Your task to perform on an android device: Clear the shopping cart on amazon. Search for "bose soundlink" on amazon, select the first entry, add it to the cart, then select checkout. Image 0: 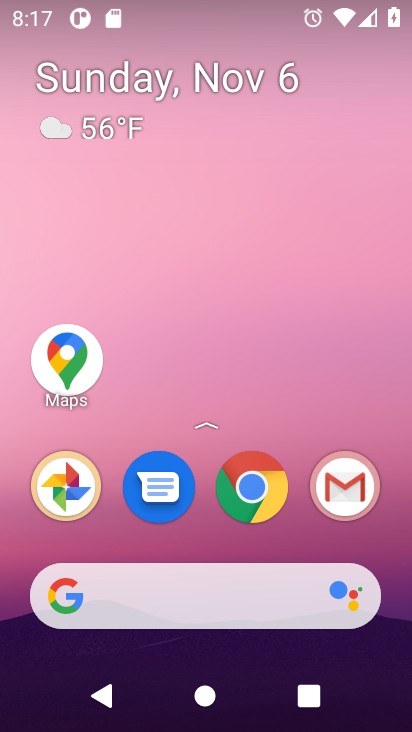
Step 0: click (247, 508)
Your task to perform on an android device: Clear the shopping cart on amazon. Search for "bose soundlink" on amazon, select the first entry, add it to the cart, then select checkout. Image 1: 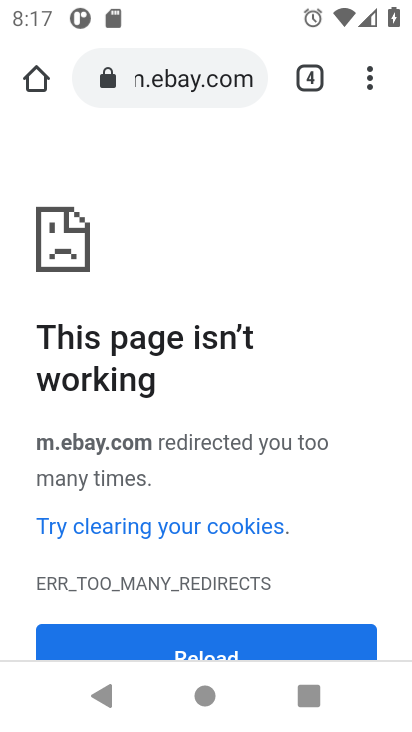
Step 1: click (204, 60)
Your task to perform on an android device: Clear the shopping cart on amazon. Search for "bose soundlink" on amazon, select the first entry, add it to the cart, then select checkout. Image 2: 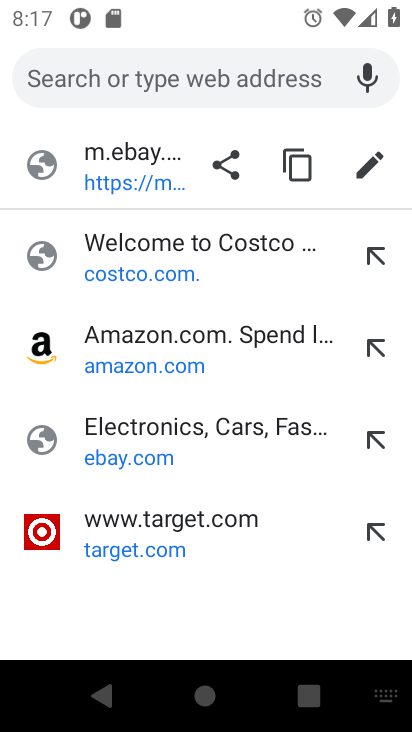
Step 2: click (245, 345)
Your task to perform on an android device: Clear the shopping cart on amazon. Search for "bose soundlink" on amazon, select the first entry, add it to the cart, then select checkout. Image 3: 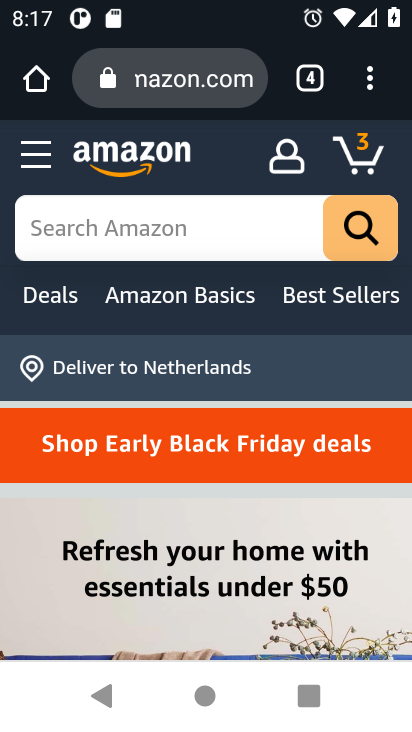
Step 3: click (353, 151)
Your task to perform on an android device: Clear the shopping cart on amazon. Search for "bose soundlink" on amazon, select the first entry, add it to the cart, then select checkout. Image 4: 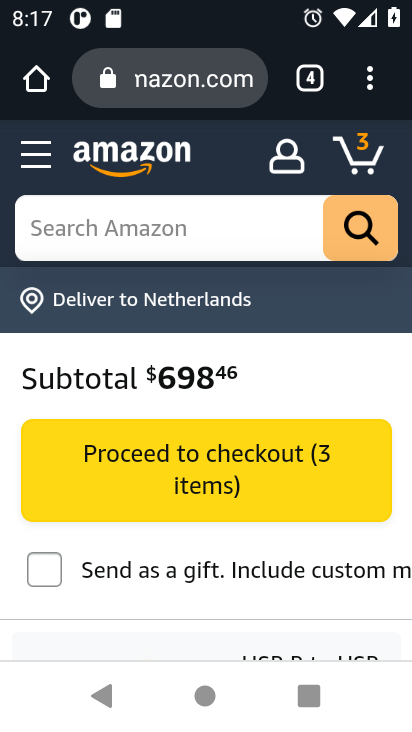
Step 4: drag from (144, 546) to (102, 135)
Your task to perform on an android device: Clear the shopping cart on amazon. Search for "bose soundlink" on amazon, select the first entry, add it to the cart, then select checkout. Image 5: 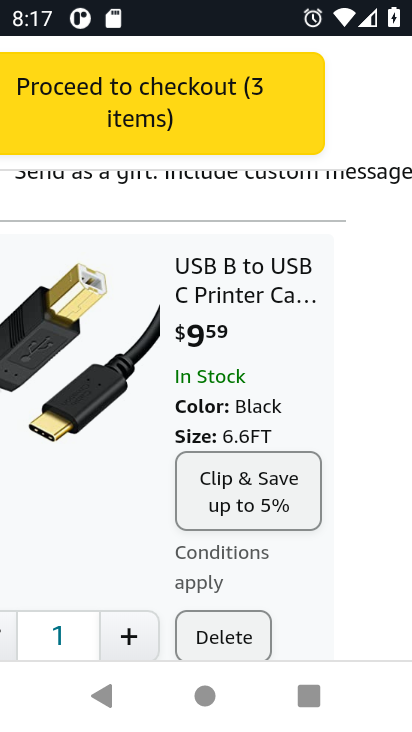
Step 5: click (241, 630)
Your task to perform on an android device: Clear the shopping cart on amazon. Search for "bose soundlink" on amazon, select the first entry, add it to the cart, then select checkout. Image 6: 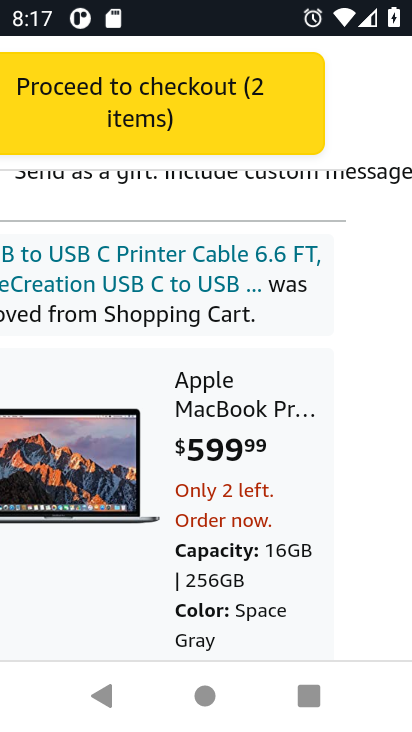
Step 6: drag from (180, 397) to (216, 264)
Your task to perform on an android device: Clear the shopping cart on amazon. Search for "bose soundlink" on amazon, select the first entry, add it to the cart, then select checkout. Image 7: 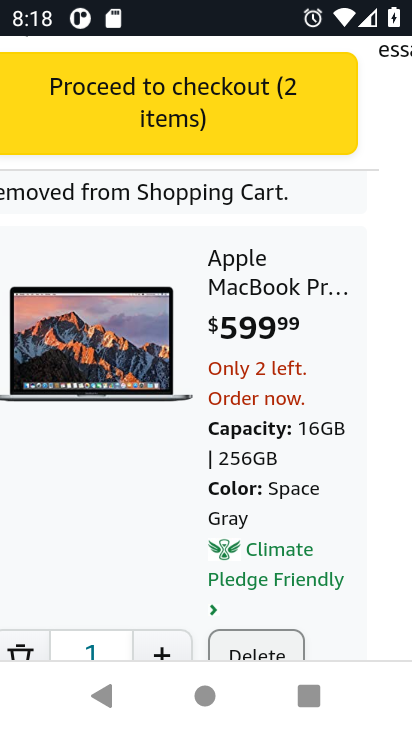
Step 7: click (277, 642)
Your task to perform on an android device: Clear the shopping cart on amazon. Search for "bose soundlink" on amazon, select the first entry, add it to the cart, then select checkout. Image 8: 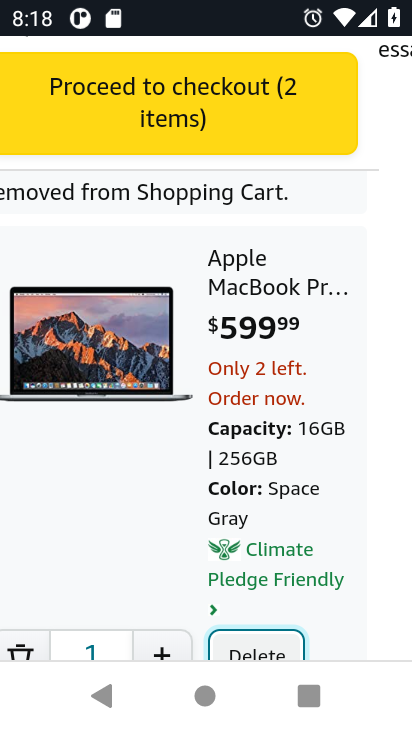
Step 8: click (277, 642)
Your task to perform on an android device: Clear the shopping cart on amazon. Search for "bose soundlink" on amazon, select the first entry, add it to the cart, then select checkout. Image 9: 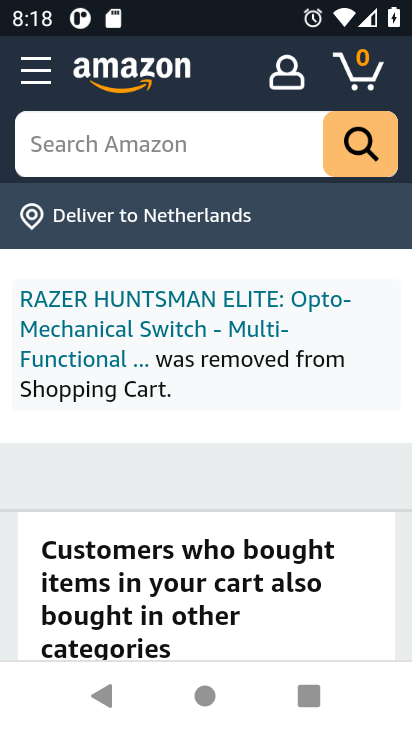
Step 9: click (174, 138)
Your task to perform on an android device: Clear the shopping cart on amazon. Search for "bose soundlink" on amazon, select the first entry, add it to the cart, then select checkout. Image 10: 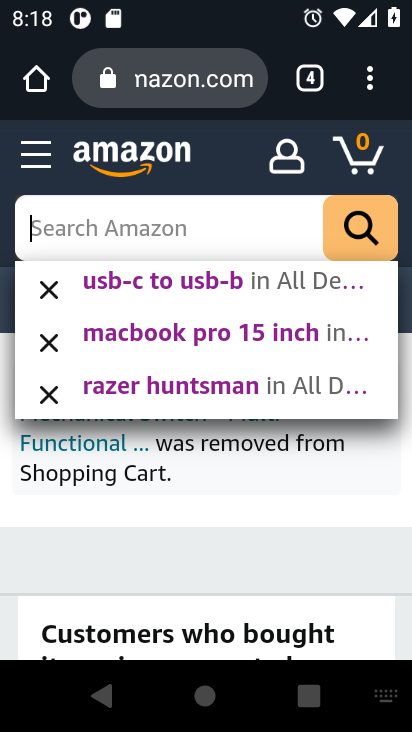
Step 10: drag from (230, 722) to (397, 686)
Your task to perform on an android device: Clear the shopping cart on amazon. Search for "bose soundlink" on amazon, select the first entry, add it to the cart, then select checkout. Image 11: 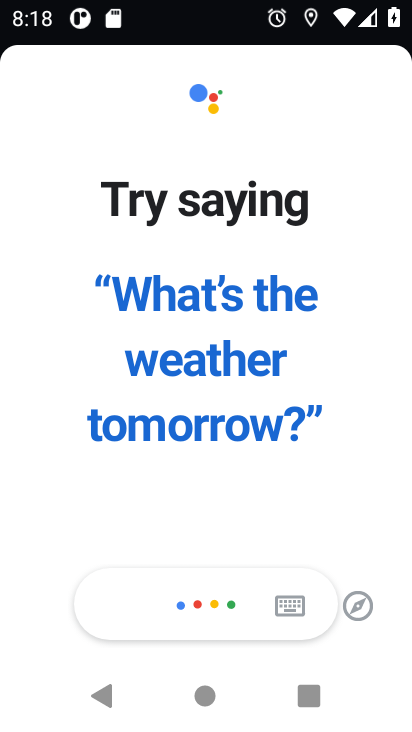
Step 11: press back button
Your task to perform on an android device: Clear the shopping cart on amazon. Search for "bose soundlink" on amazon, select the first entry, add it to the cart, then select checkout. Image 12: 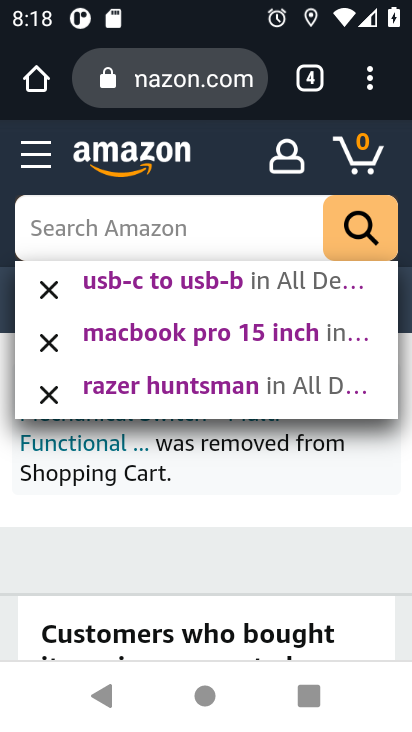
Step 12: type "bose soundlink"
Your task to perform on an android device: Clear the shopping cart on amazon. Search for "bose soundlink" on amazon, select the first entry, add it to the cart, then select checkout. Image 13: 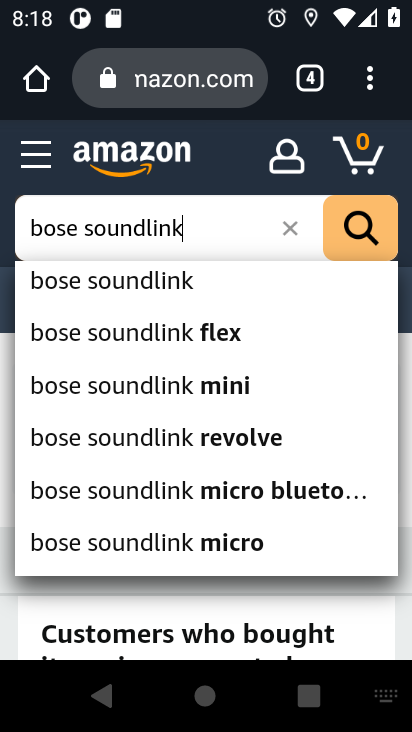
Step 13: click (371, 229)
Your task to perform on an android device: Clear the shopping cart on amazon. Search for "bose soundlink" on amazon, select the first entry, add it to the cart, then select checkout. Image 14: 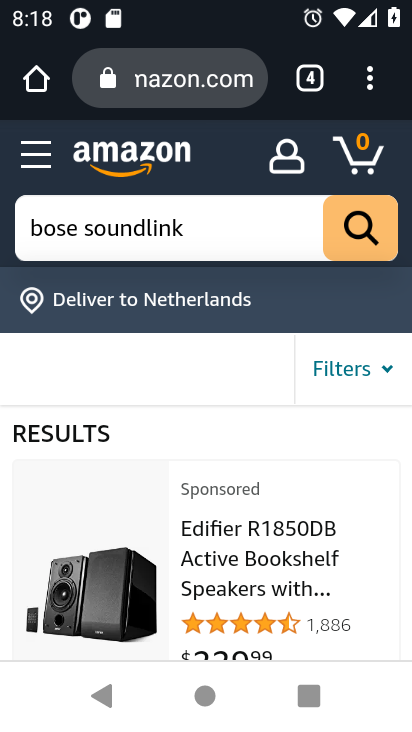
Step 14: drag from (183, 604) to (208, 185)
Your task to perform on an android device: Clear the shopping cart on amazon. Search for "bose soundlink" on amazon, select the first entry, add it to the cart, then select checkout. Image 15: 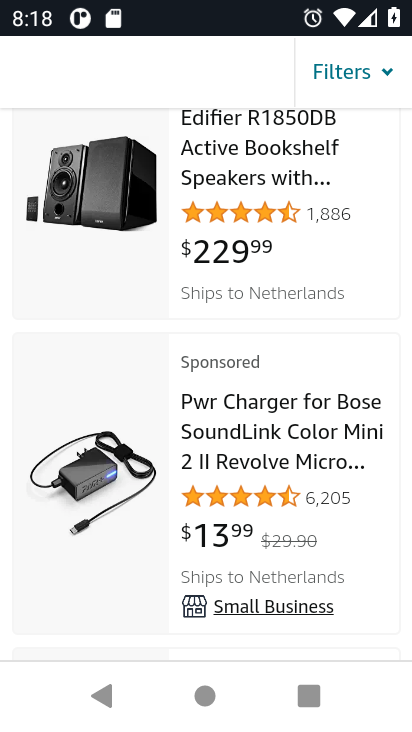
Step 15: click (241, 157)
Your task to perform on an android device: Clear the shopping cart on amazon. Search for "bose soundlink" on amazon, select the first entry, add it to the cart, then select checkout. Image 16: 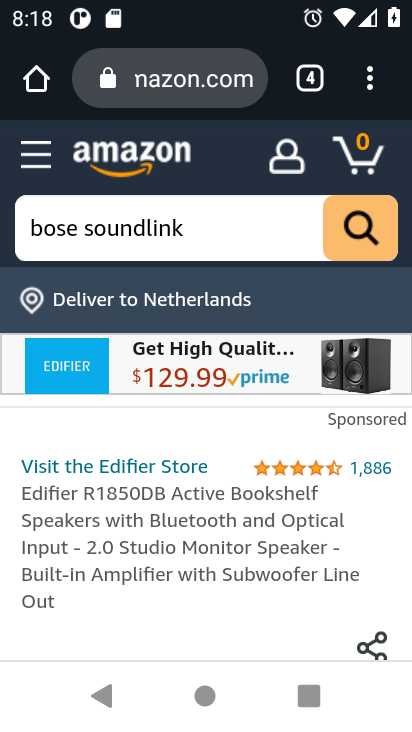
Step 16: drag from (92, 637) to (232, 124)
Your task to perform on an android device: Clear the shopping cart on amazon. Search for "bose soundlink" on amazon, select the first entry, add it to the cart, then select checkout. Image 17: 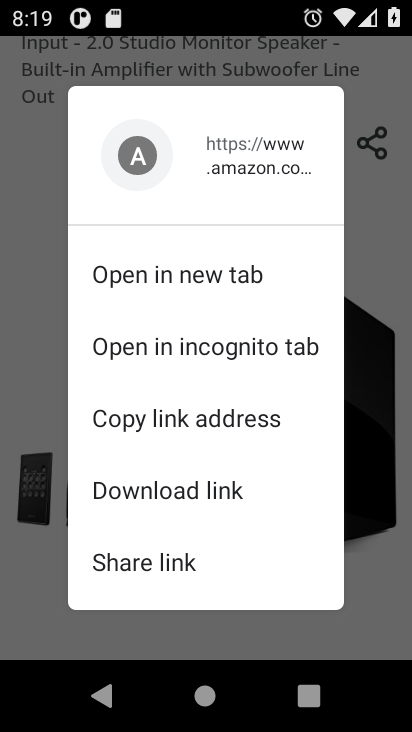
Step 17: click (41, 603)
Your task to perform on an android device: Clear the shopping cart on amazon. Search for "bose soundlink" on amazon, select the first entry, add it to the cart, then select checkout. Image 18: 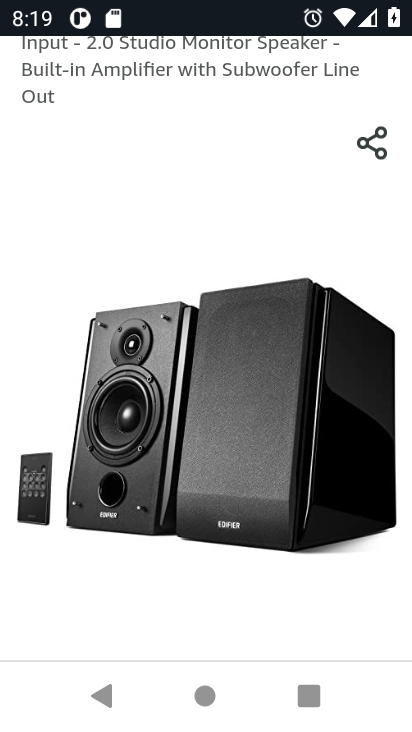
Step 18: drag from (41, 603) to (222, 81)
Your task to perform on an android device: Clear the shopping cart on amazon. Search for "bose soundlink" on amazon, select the first entry, add it to the cart, then select checkout. Image 19: 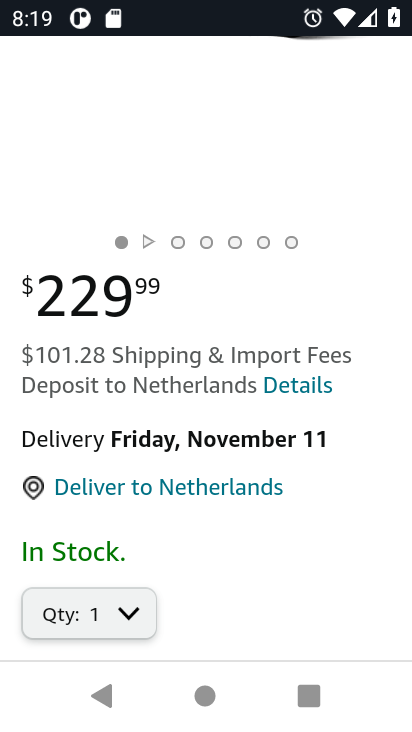
Step 19: drag from (195, 541) to (171, 121)
Your task to perform on an android device: Clear the shopping cart on amazon. Search for "bose soundlink" on amazon, select the first entry, add it to the cart, then select checkout. Image 20: 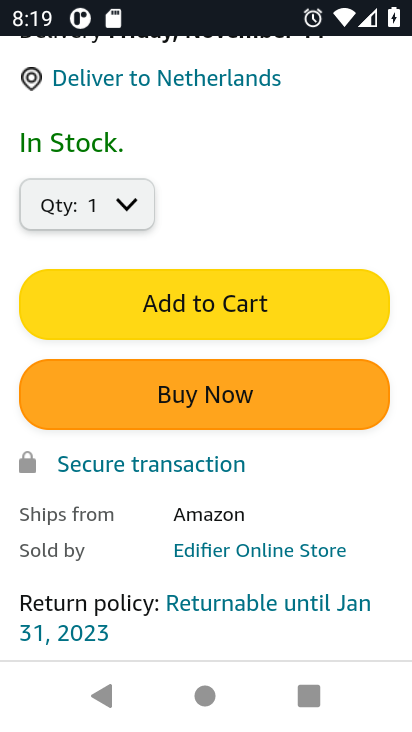
Step 20: click (183, 319)
Your task to perform on an android device: Clear the shopping cart on amazon. Search for "bose soundlink" on amazon, select the first entry, add it to the cart, then select checkout. Image 21: 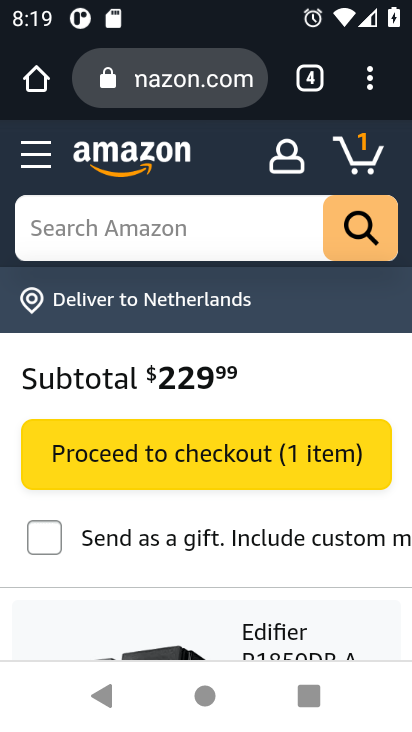
Step 21: click (140, 462)
Your task to perform on an android device: Clear the shopping cart on amazon. Search for "bose soundlink" on amazon, select the first entry, add it to the cart, then select checkout. Image 22: 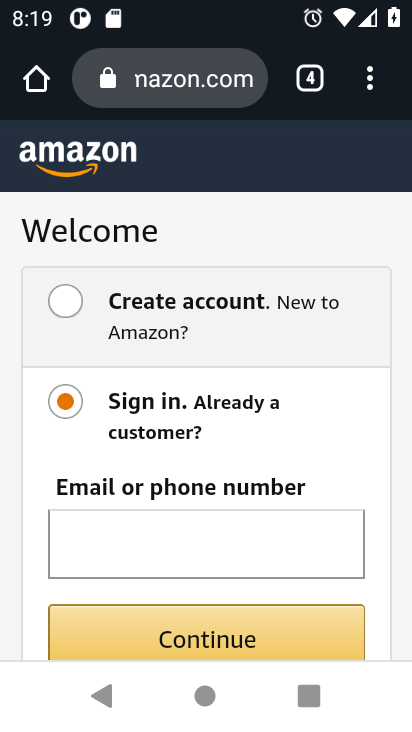
Step 22: task complete